Your task to perform on an android device: Open Maps and search for coffee Image 0: 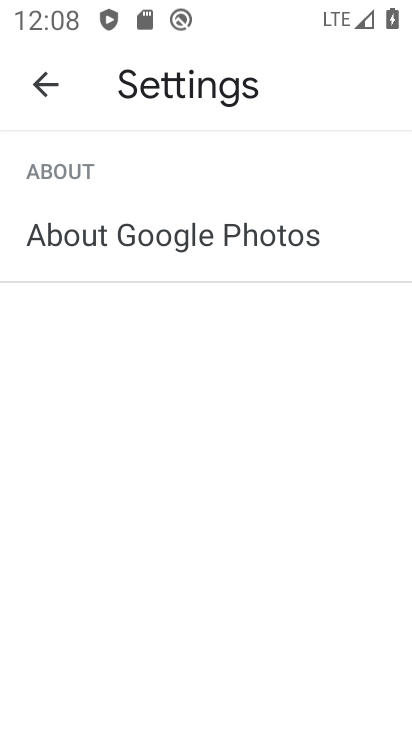
Step 0: press home button
Your task to perform on an android device: Open Maps and search for coffee Image 1: 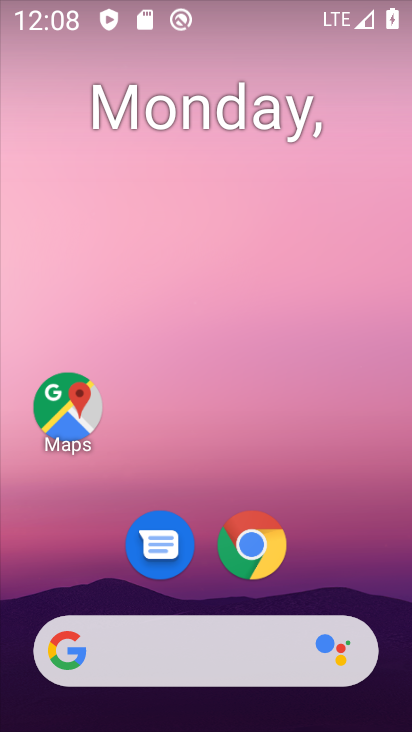
Step 1: drag from (344, 579) to (344, 174)
Your task to perform on an android device: Open Maps and search for coffee Image 2: 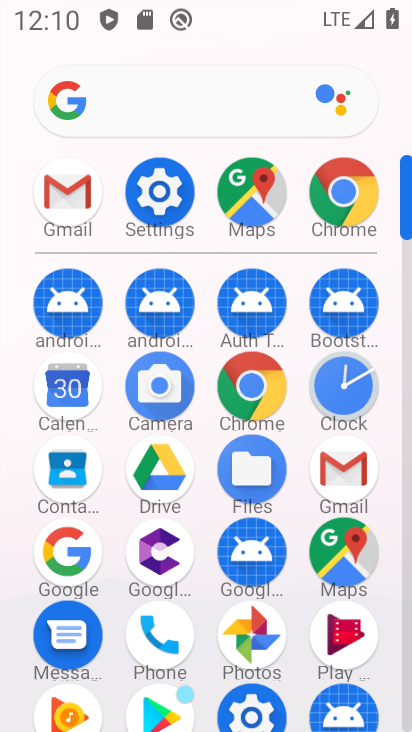
Step 2: click (371, 555)
Your task to perform on an android device: Open Maps and search for coffee Image 3: 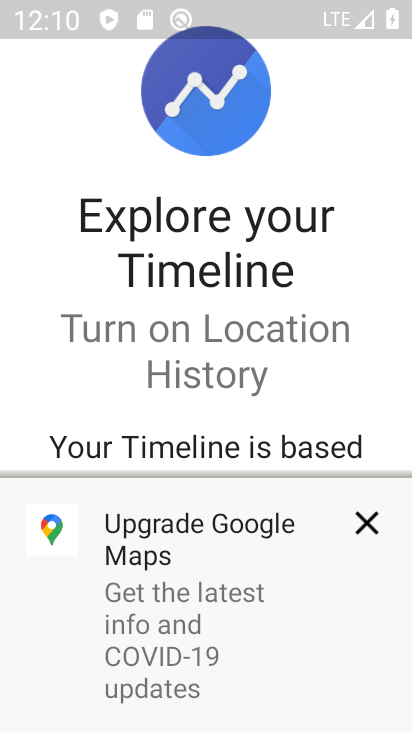
Step 3: click (373, 531)
Your task to perform on an android device: Open Maps and search for coffee Image 4: 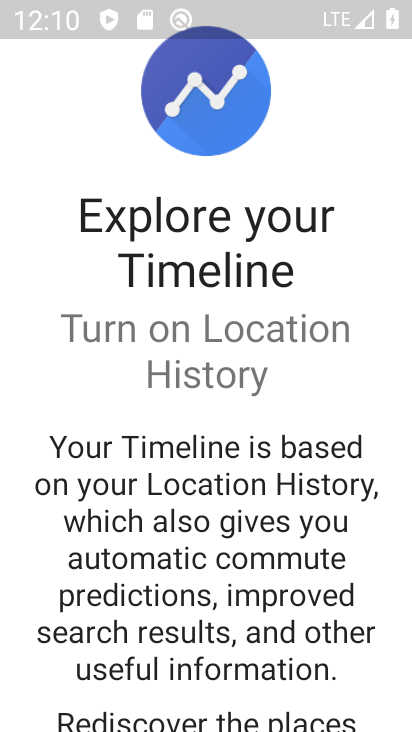
Step 4: drag from (248, 640) to (306, 269)
Your task to perform on an android device: Open Maps and search for coffee Image 5: 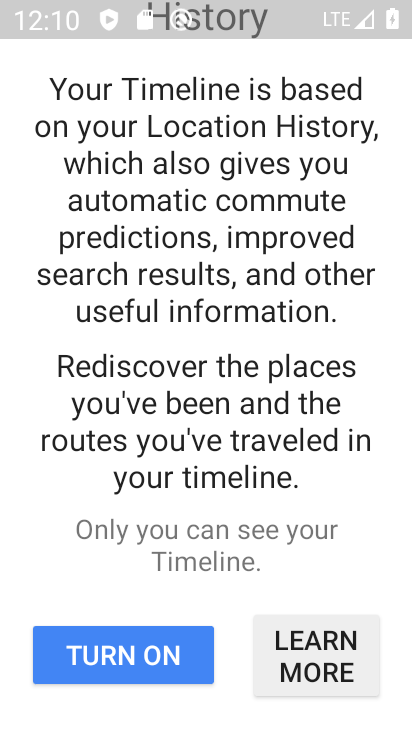
Step 5: click (136, 665)
Your task to perform on an android device: Open Maps and search for coffee Image 6: 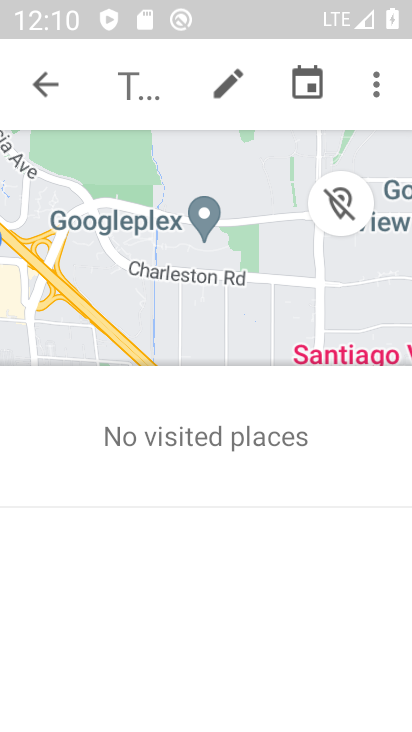
Step 6: click (46, 75)
Your task to perform on an android device: Open Maps and search for coffee Image 7: 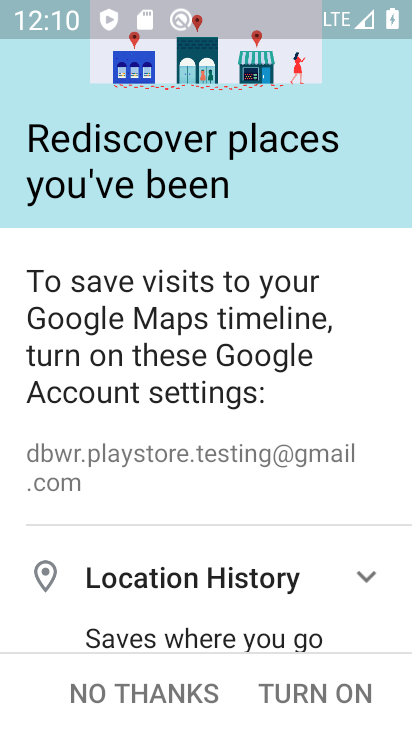
Step 7: click (159, 699)
Your task to perform on an android device: Open Maps and search for coffee Image 8: 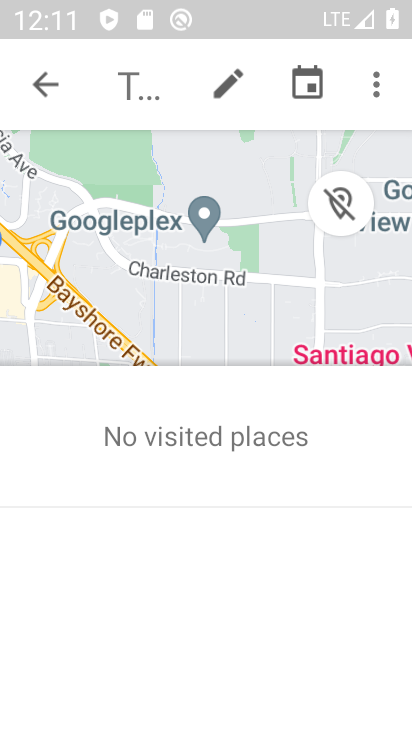
Step 8: click (30, 71)
Your task to perform on an android device: Open Maps and search for coffee Image 9: 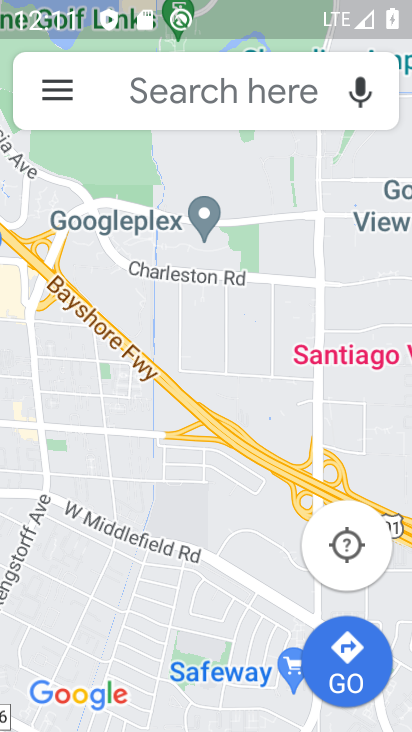
Step 9: click (159, 79)
Your task to perform on an android device: Open Maps and search for coffee Image 10: 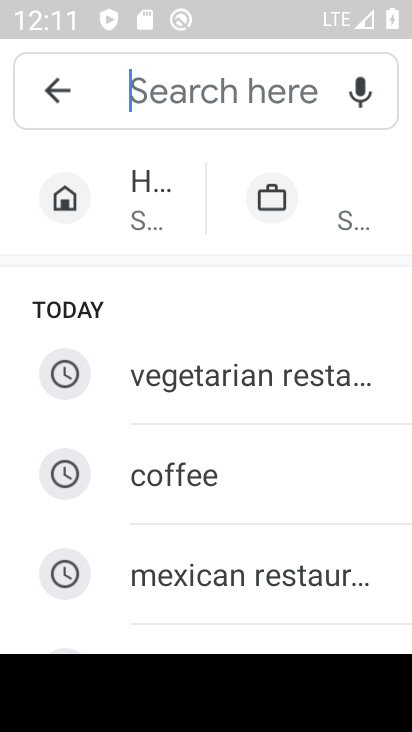
Step 10: type "coffee"
Your task to perform on an android device: Open Maps and search for coffee Image 11: 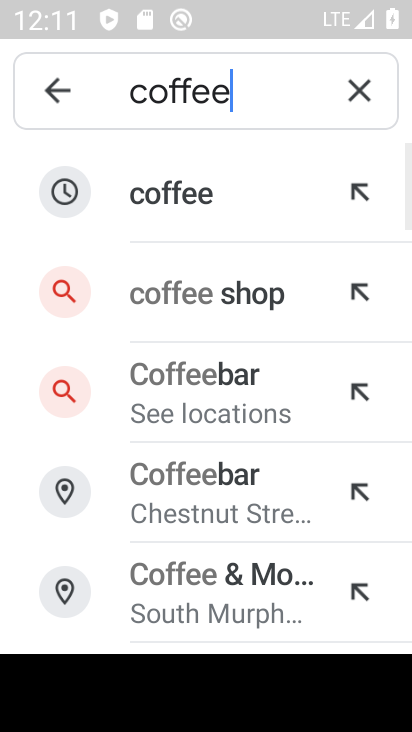
Step 11: click (226, 208)
Your task to perform on an android device: Open Maps and search for coffee Image 12: 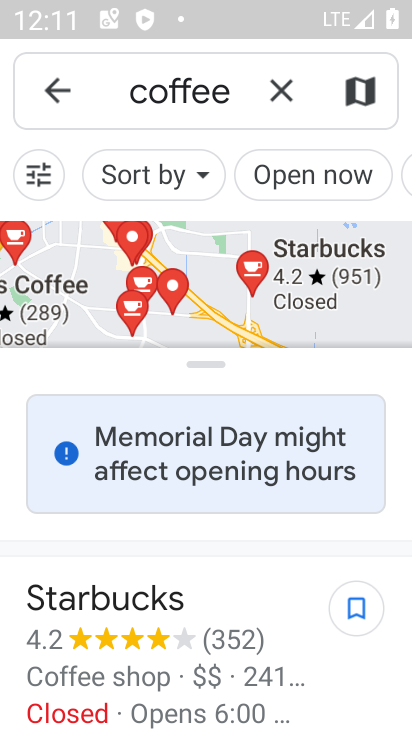
Step 12: task complete